Your task to perform on an android device: all mails in gmail Image 0: 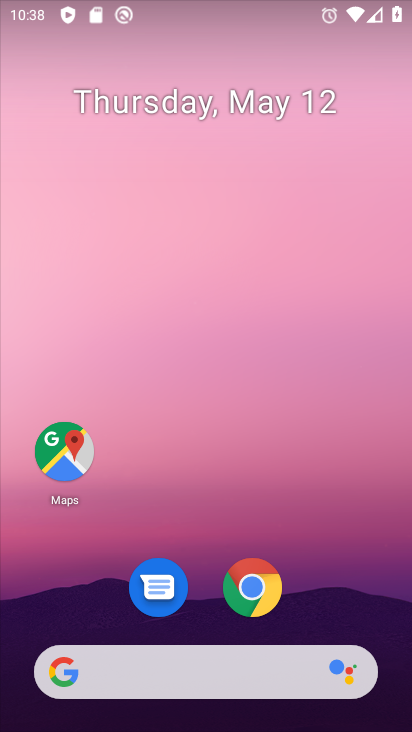
Step 0: drag from (345, 564) to (276, 32)
Your task to perform on an android device: all mails in gmail Image 1: 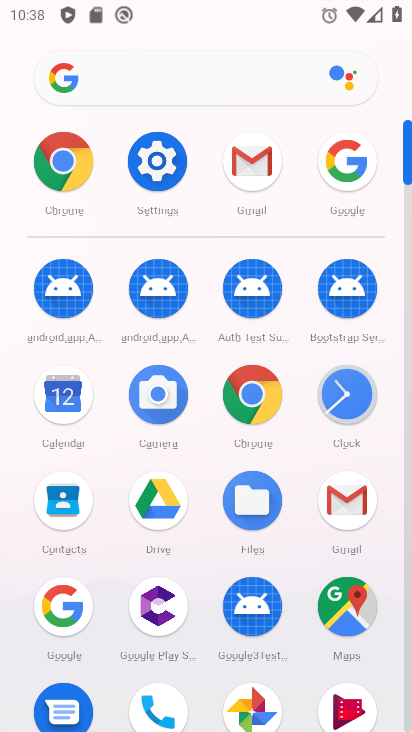
Step 1: click (258, 159)
Your task to perform on an android device: all mails in gmail Image 2: 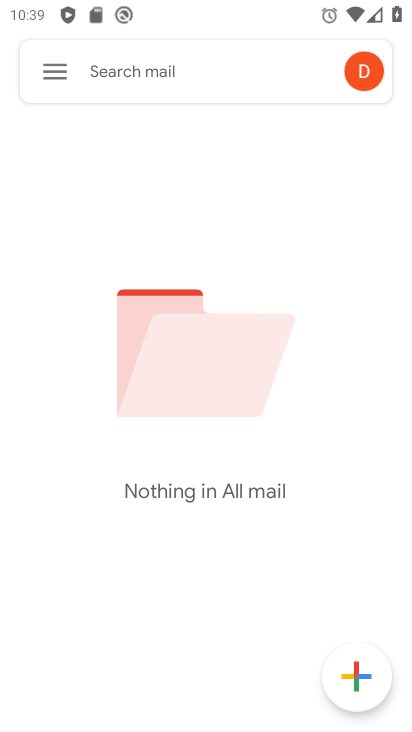
Step 2: click (43, 72)
Your task to perform on an android device: all mails in gmail Image 3: 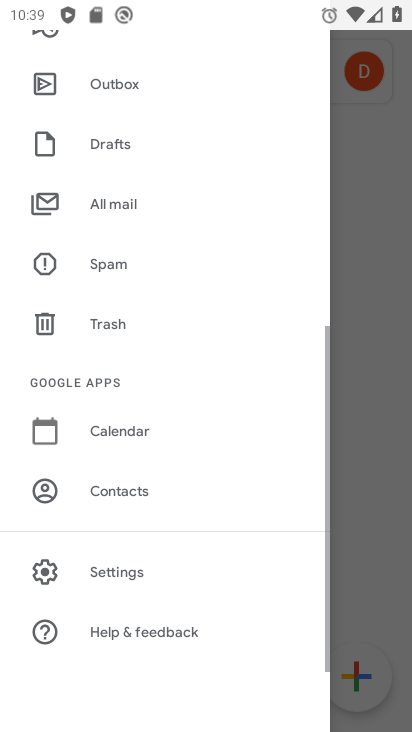
Step 3: drag from (144, 578) to (85, 206)
Your task to perform on an android device: all mails in gmail Image 4: 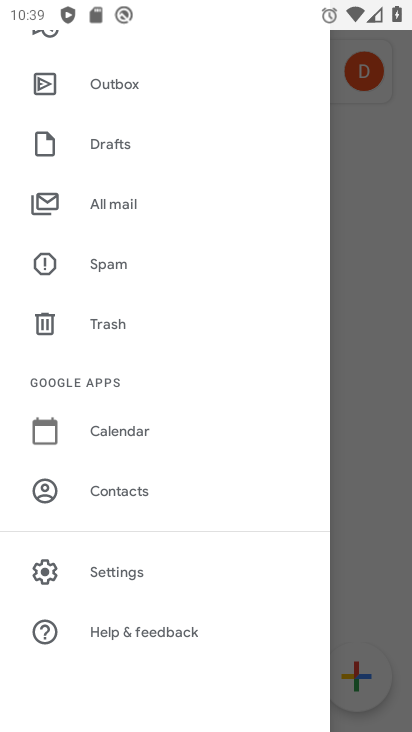
Step 4: click (88, 204)
Your task to perform on an android device: all mails in gmail Image 5: 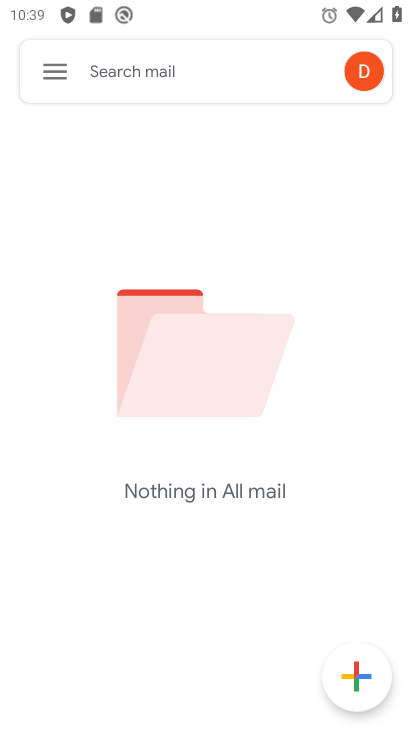
Step 5: task complete